Your task to perform on an android device: open a new tab in the chrome app Image 0: 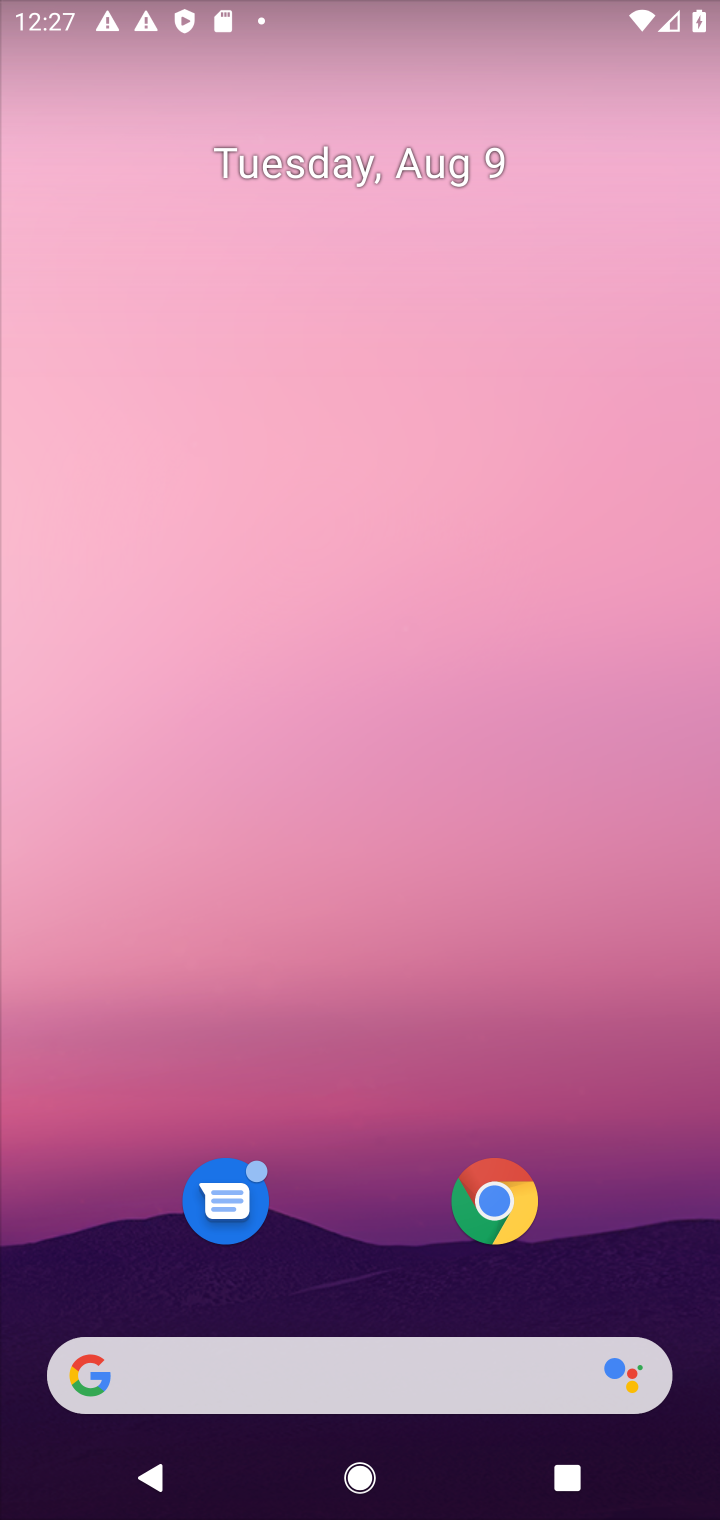
Step 0: click (465, 1192)
Your task to perform on an android device: open a new tab in the chrome app Image 1: 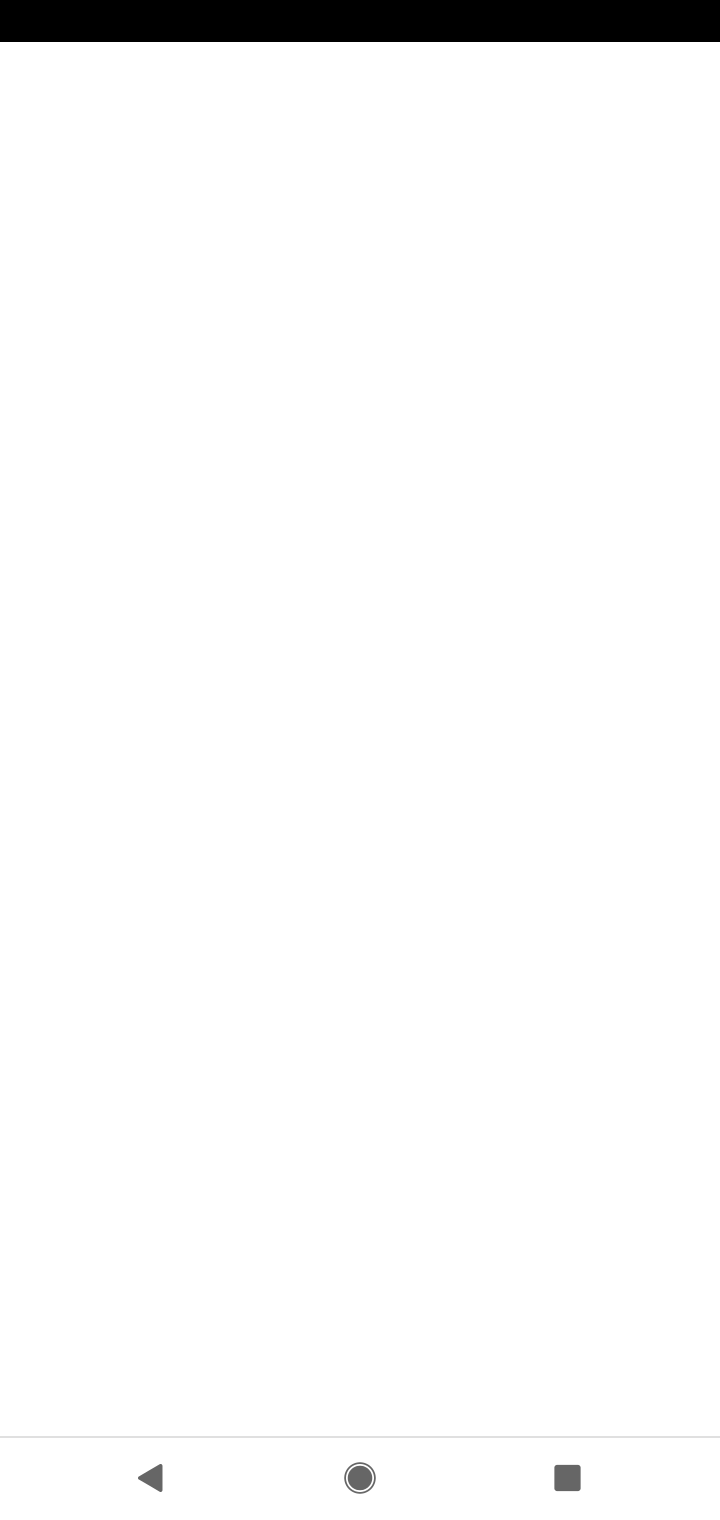
Step 1: click (501, 1196)
Your task to perform on an android device: open a new tab in the chrome app Image 2: 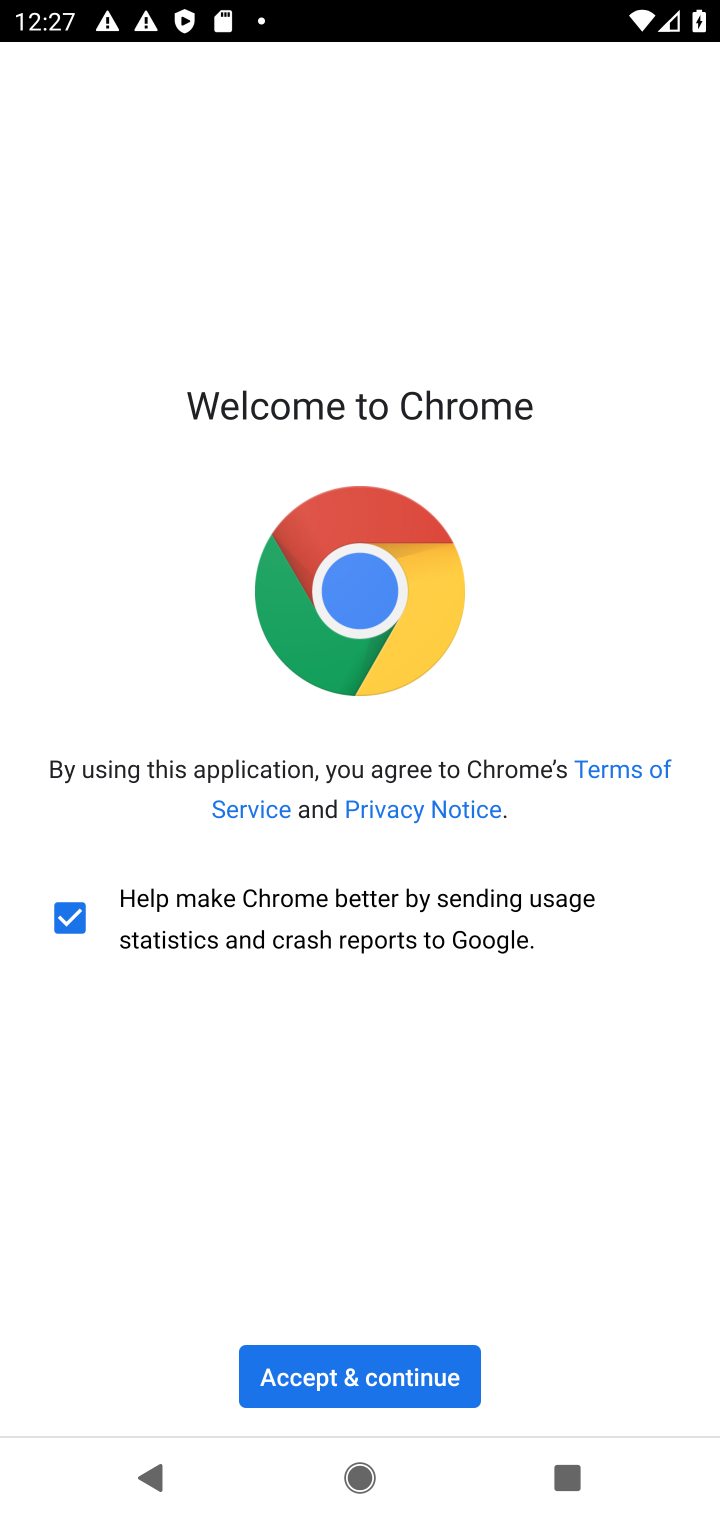
Step 2: click (389, 1386)
Your task to perform on an android device: open a new tab in the chrome app Image 3: 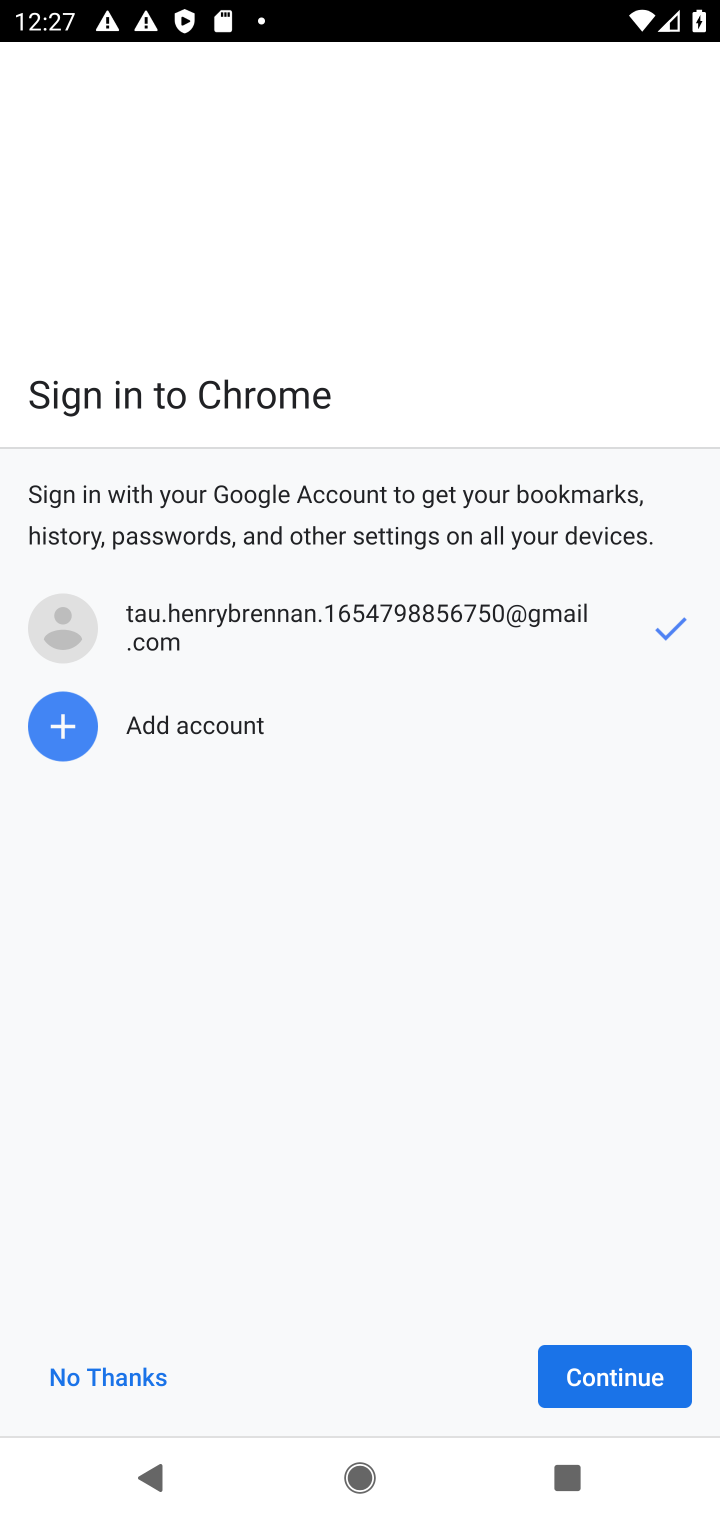
Step 3: click (620, 1391)
Your task to perform on an android device: open a new tab in the chrome app Image 4: 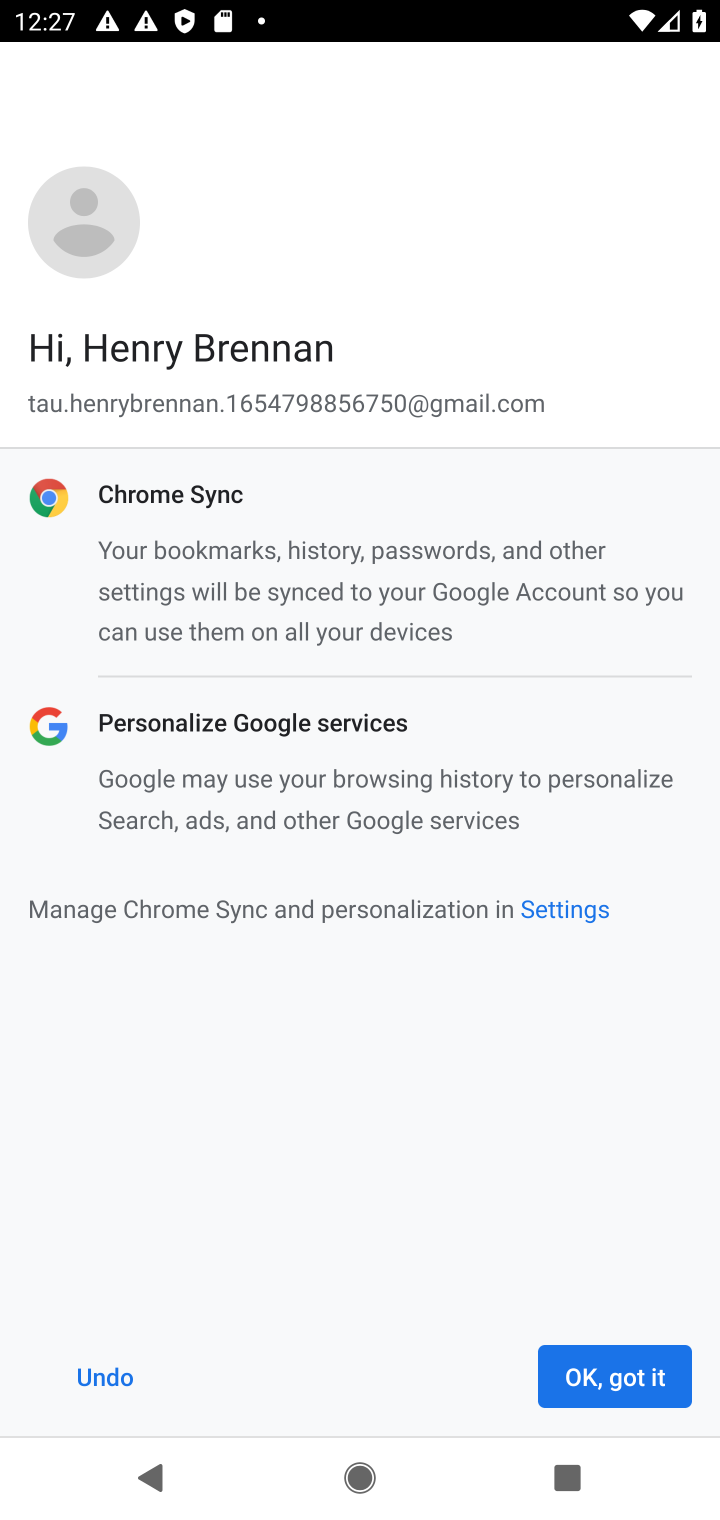
Step 4: click (620, 1389)
Your task to perform on an android device: open a new tab in the chrome app Image 5: 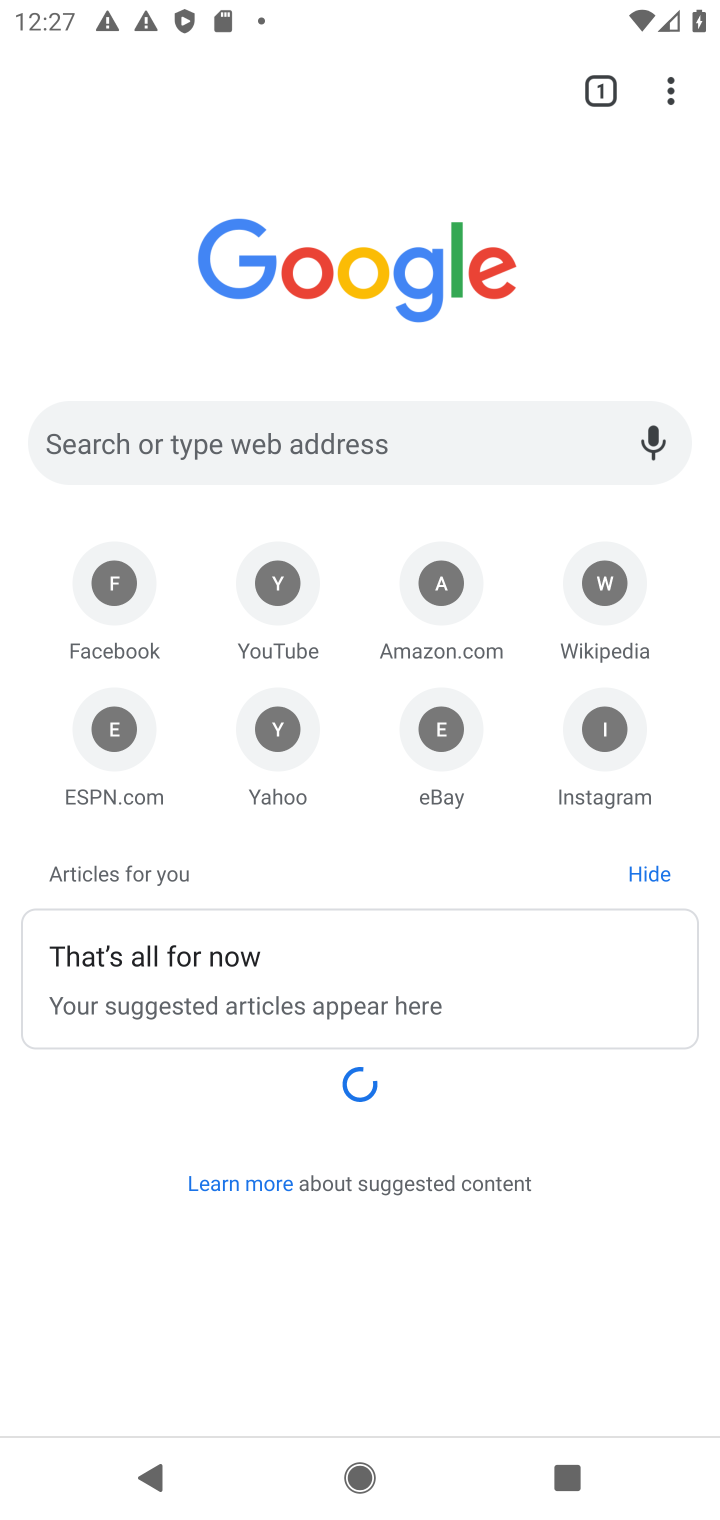
Step 5: click (688, 101)
Your task to perform on an android device: open a new tab in the chrome app Image 6: 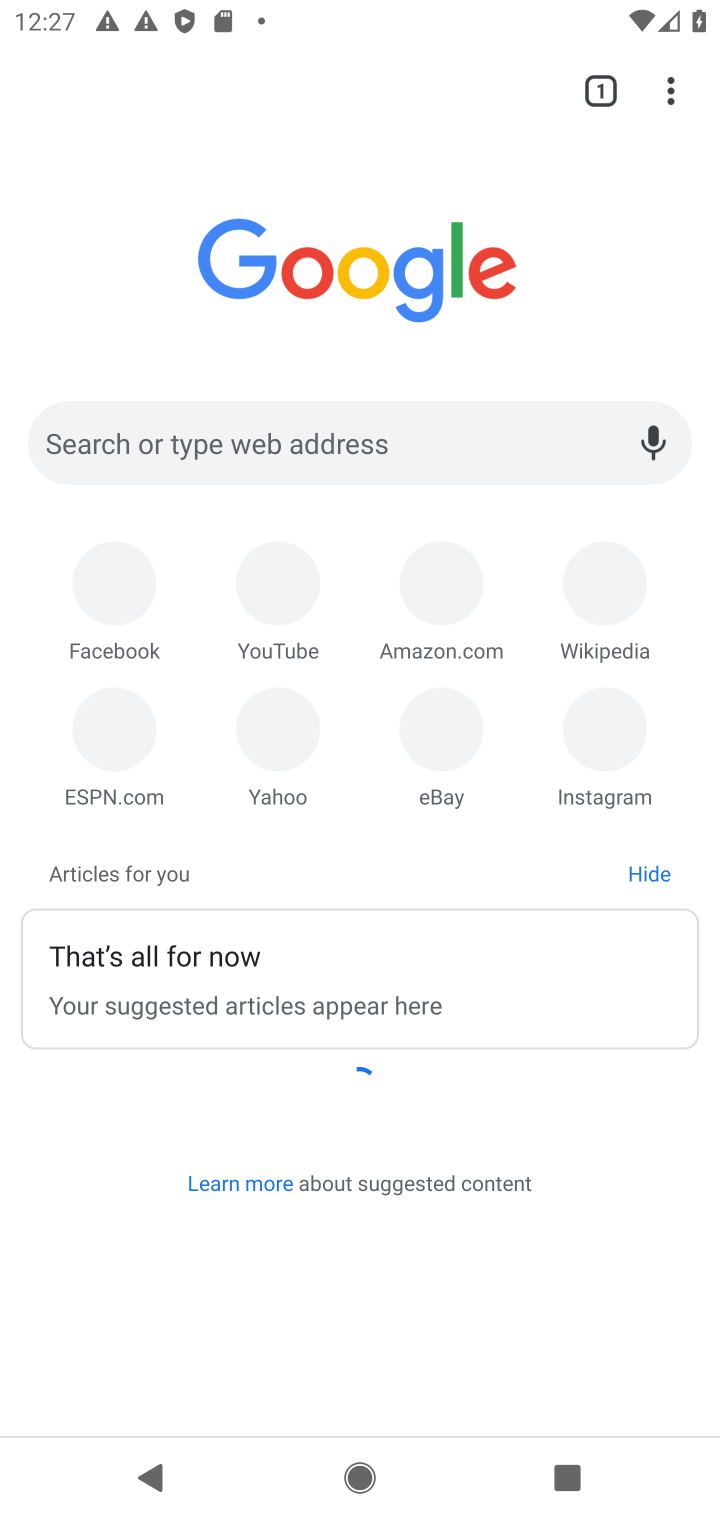
Step 6: click (670, 93)
Your task to perform on an android device: open a new tab in the chrome app Image 7: 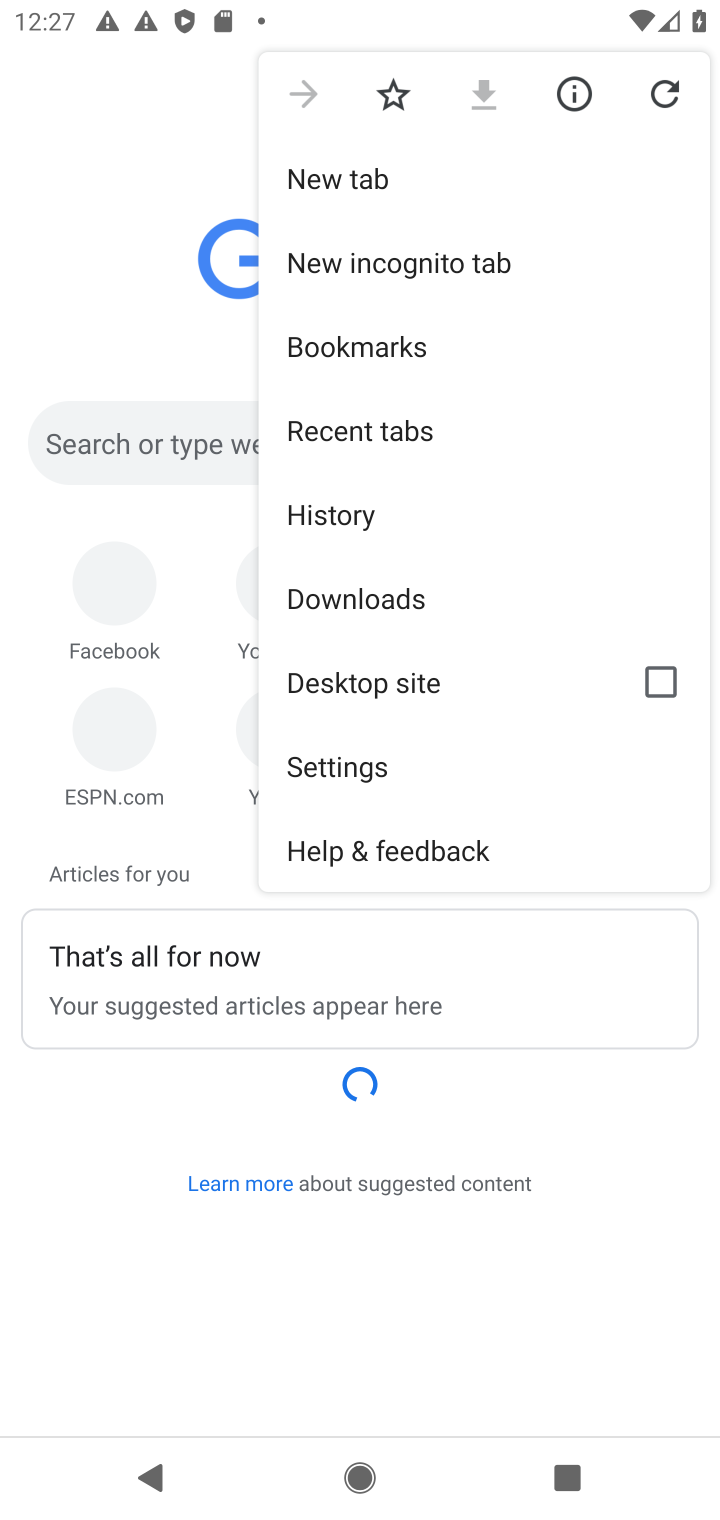
Step 7: click (293, 207)
Your task to perform on an android device: open a new tab in the chrome app Image 8: 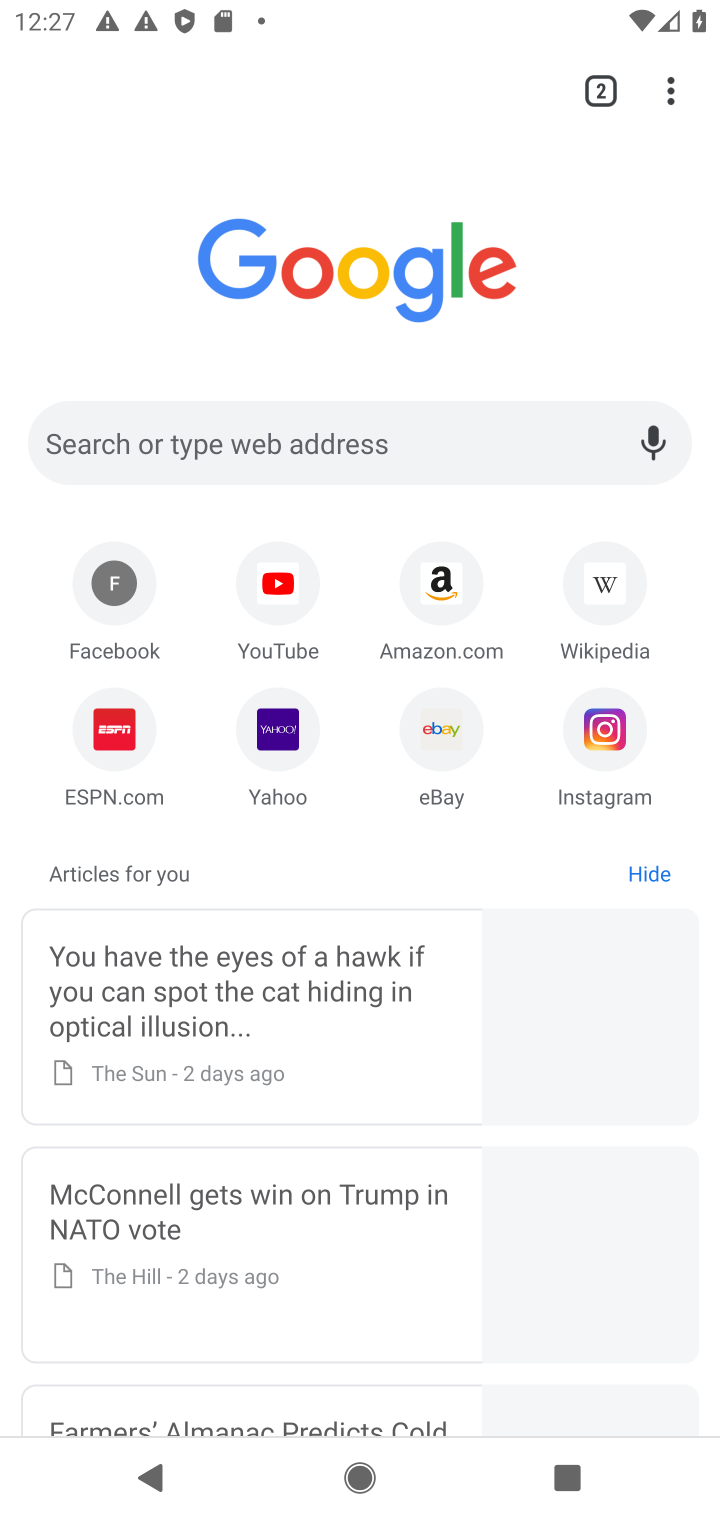
Step 8: task complete